Your task to perform on an android device: turn pop-ups off in chrome Image 0: 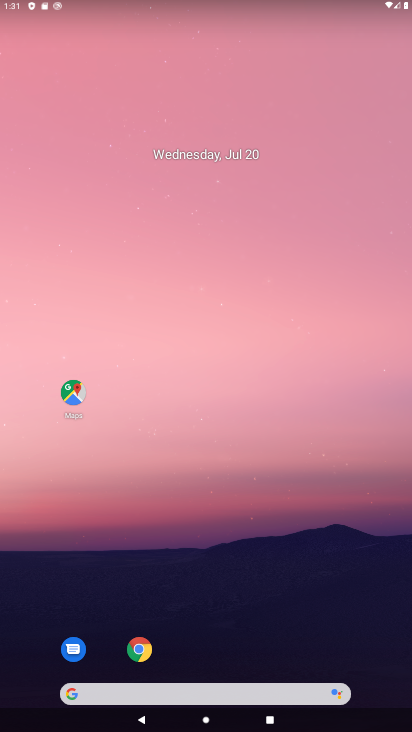
Step 0: click (139, 652)
Your task to perform on an android device: turn pop-ups off in chrome Image 1: 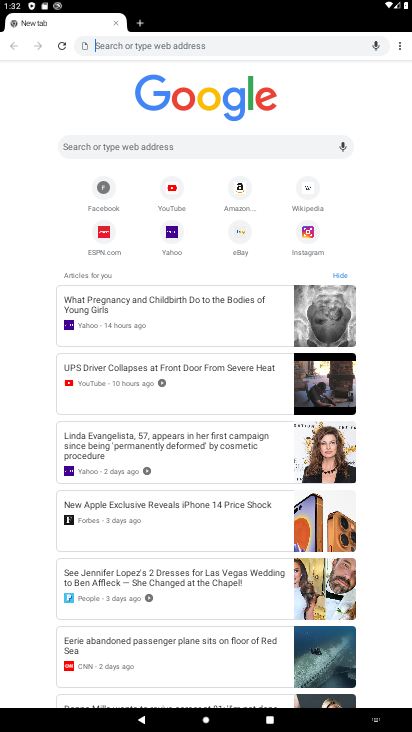
Step 1: task complete